Your task to perform on an android device: turn off sleep mode Image 0: 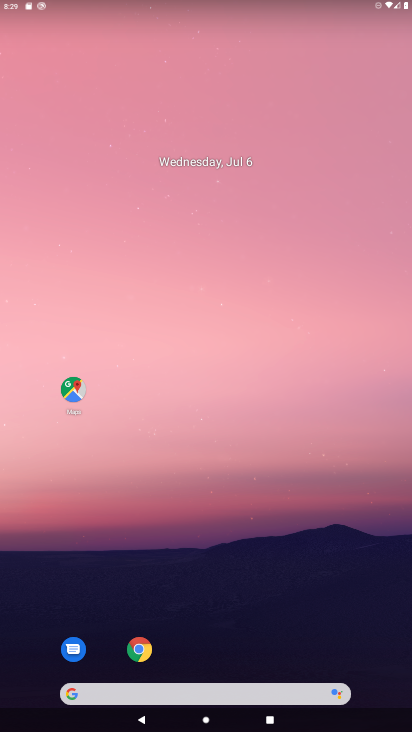
Step 0: drag from (349, 689) to (319, 363)
Your task to perform on an android device: turn off sleep mode Image 1: 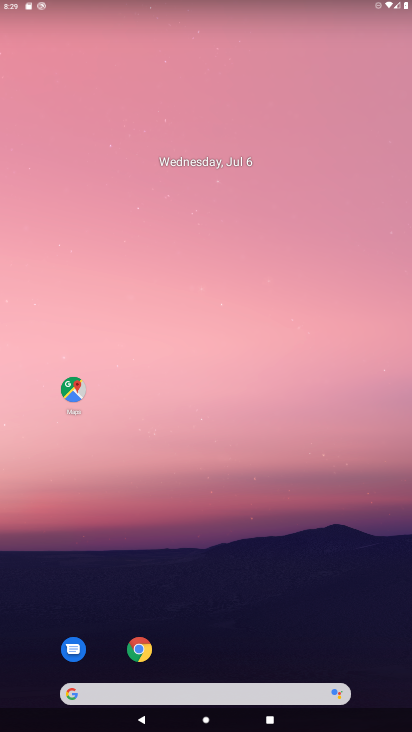
Step 1: drag from (250, 336) to (211, 166)
Your task to perform on an android device: turn off sleep mode Image 2: 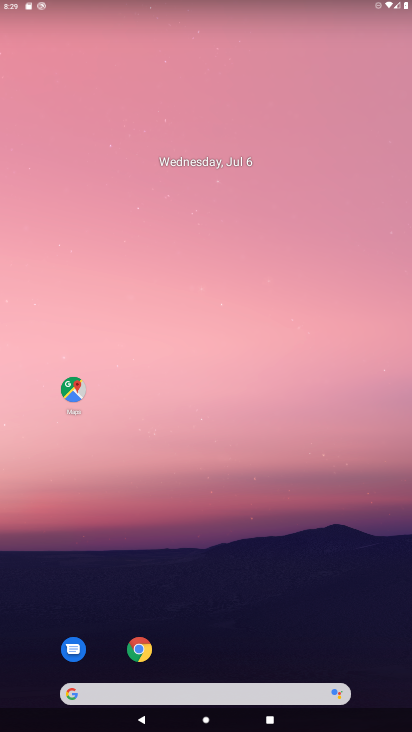
Step 2: drag from (303, 655) to (151, 124)
Your task to perform on an android device: turn off sleep mode Image 3: 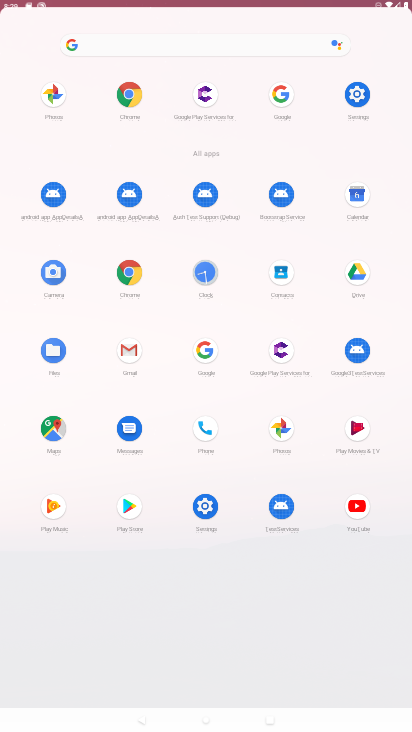
Step 3: drag from (240, 688) to (141, 88)
Your task to perform on an android device: turn off sleep mode Image 4: 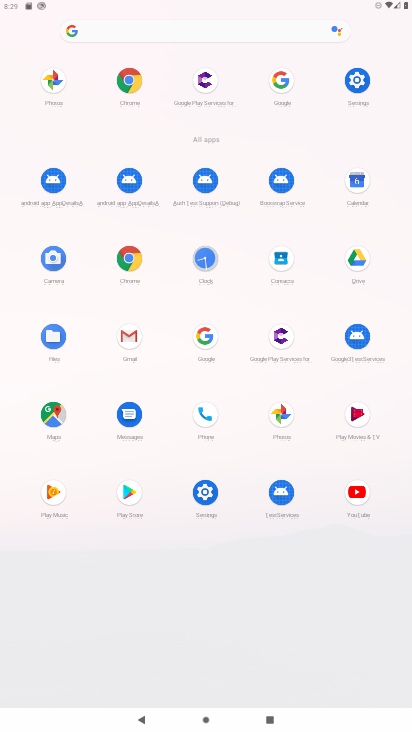
Step 4: click (360, 82)
Your task to perform on an android device: turn off sleep mode Image 5: 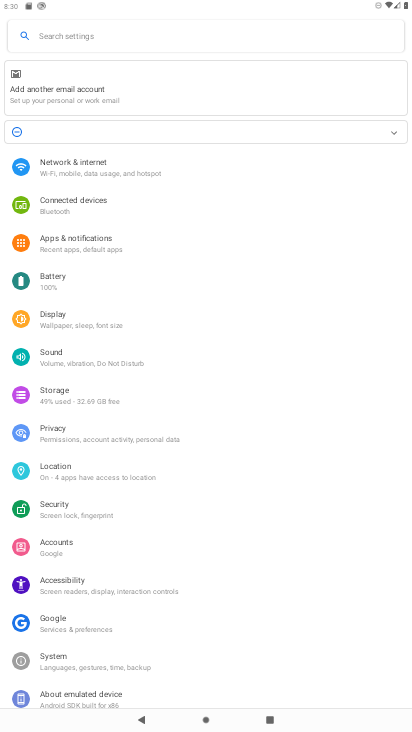
Step 5: drag from (140, 650) to (161, 96)
Your task to perform on an android device: turn off sleep mode Image 6: 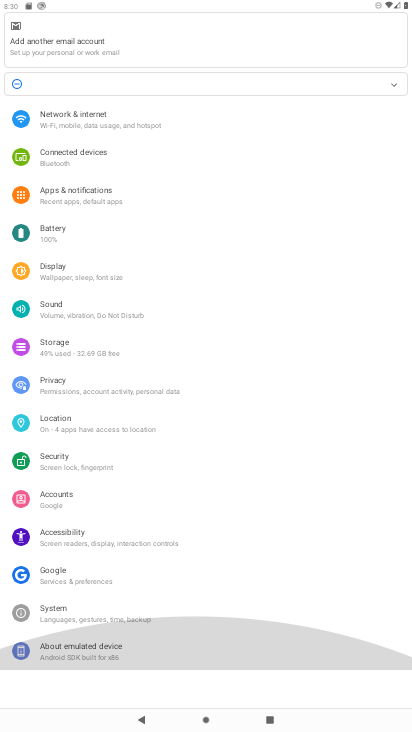
Step 6: drag from (154, 540) to (122, 40)
Your task to perform on an android device: turn off sleep mode Image 7: 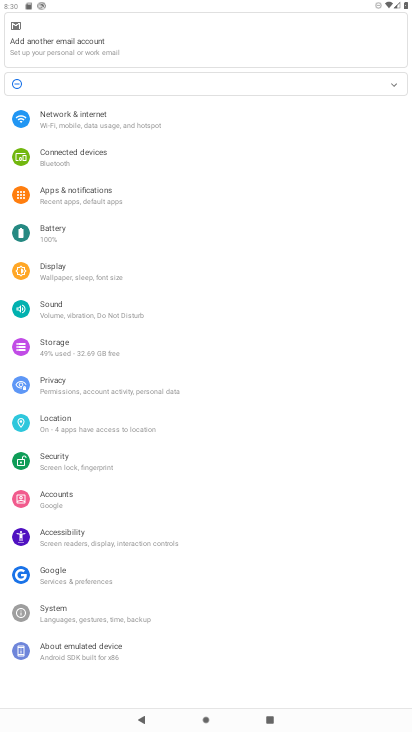
Step 7: click (69, 312)
Your task to perform on an android device: turn off sleep mode Image 8: 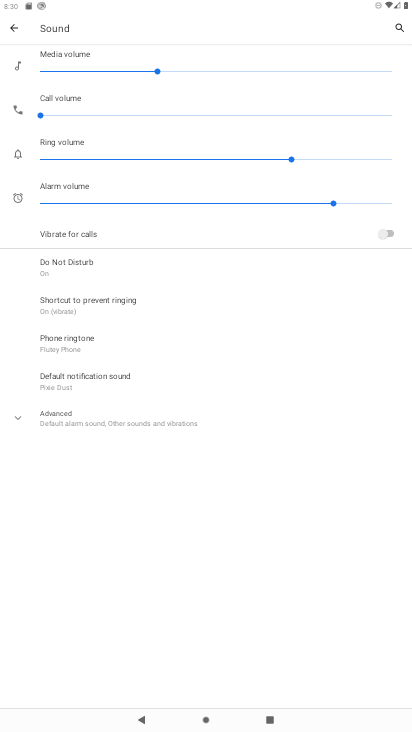
Step 8: click (8, 31)
Your task to perform on an android device: turn off sleep mode Image 9: 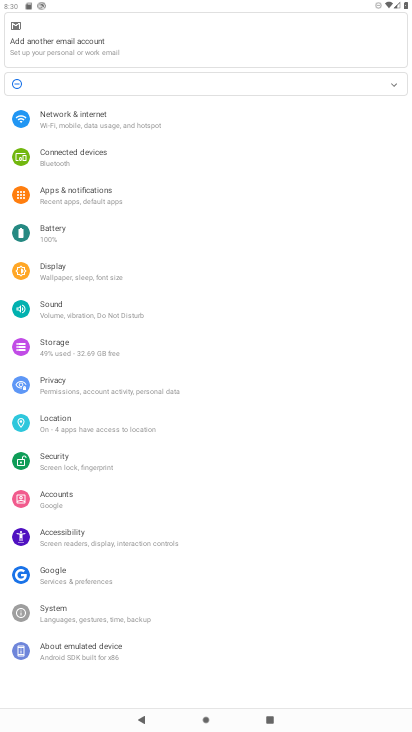
Step 9: task complete